Your task to perform on an android device: toggle show notifications on the lock screen Image 0: 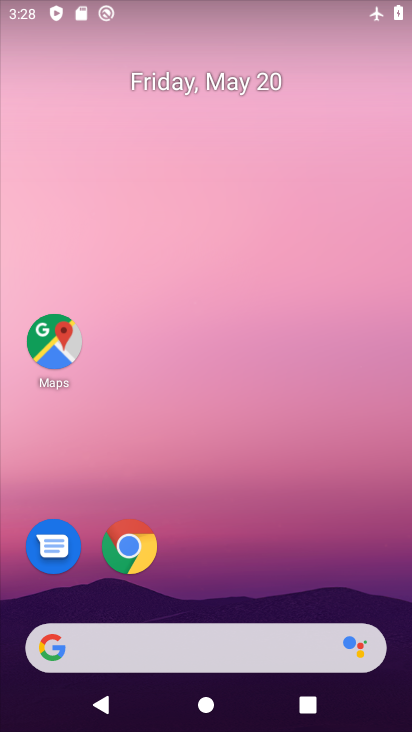
Step 0: drag from (278, 421) to (304, 137)
Your task to perform on an android device: toggle show notifications on the lock screen Image 1: 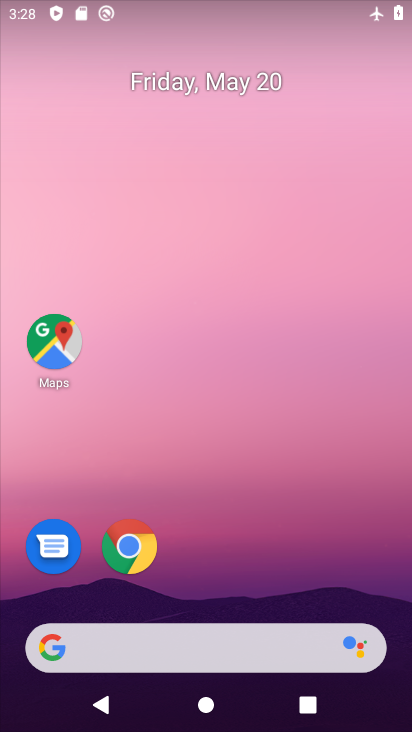
Step 1: drag from (313, 523) to (283, 53)
Your task to perform on an android device: toggle show notifications on the lock screen Image 2: 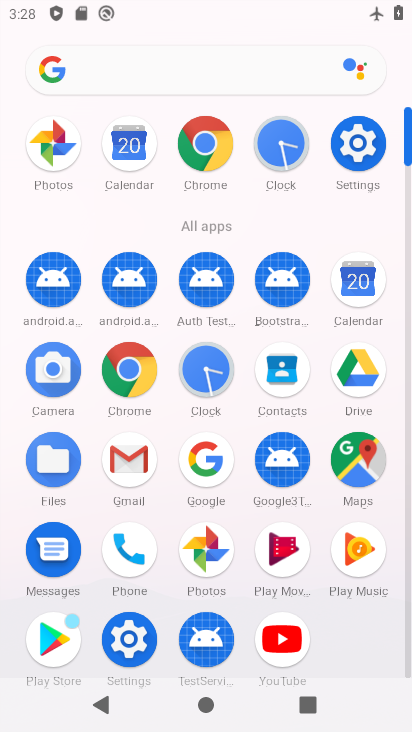
Step 2: click (362, 155)
Your task to perform on an android device: toggle show notifications on the lock screen Image 3: 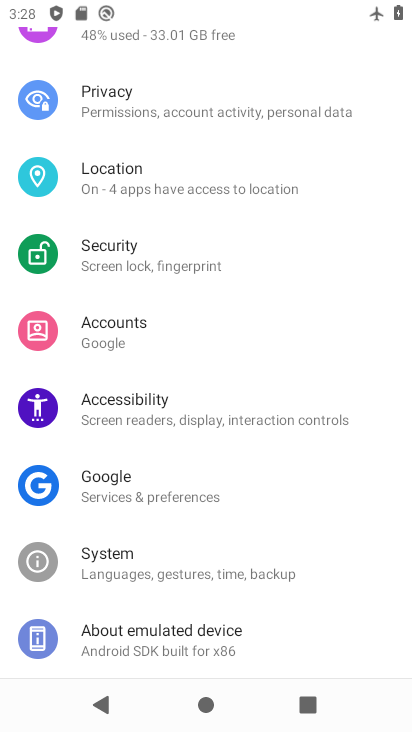
Step 3: drag from (204, 170) to (167, 625)
Your task to perform on an android device: toggle show notifications on the lock screen Image 4: 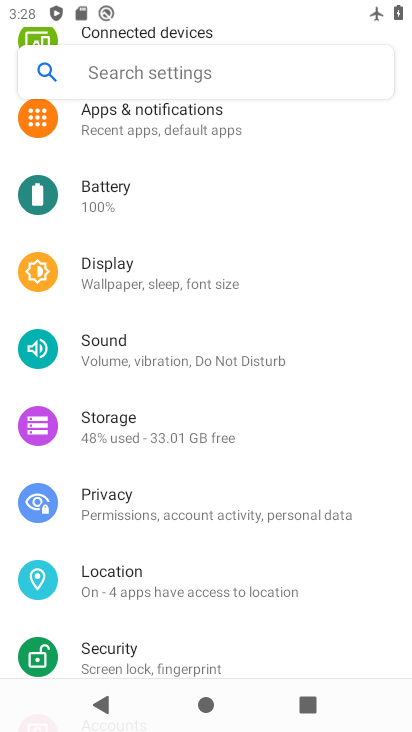
Step 4: drag from (215, 176) to (206, 559)
Your task to perform on an android device: toggle show notifications on the lock screen Image 5: 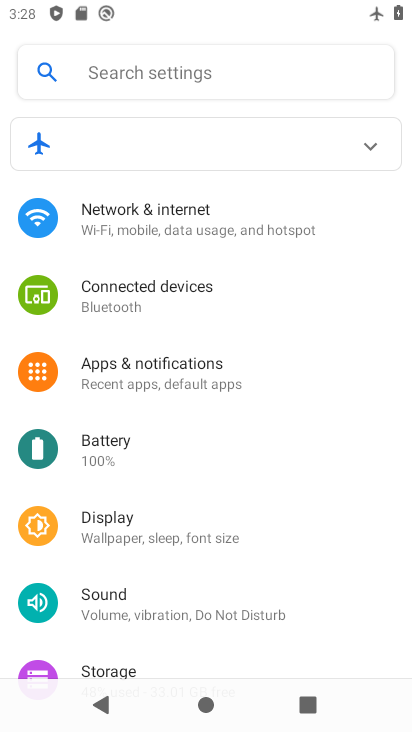
Step 5: click (164, 367)
Your task to perform on an android device: toggle show notifications on the lock screen Image 6: 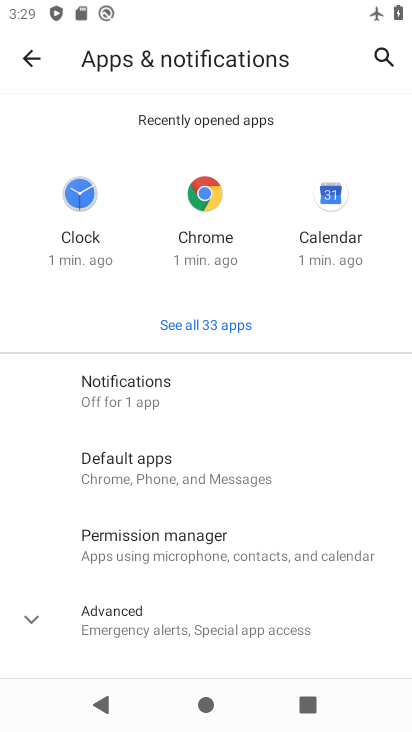
Step 6: click (160, 390)
Your task to perform on an android device: toggle show notifications on the lock screen Image 7: 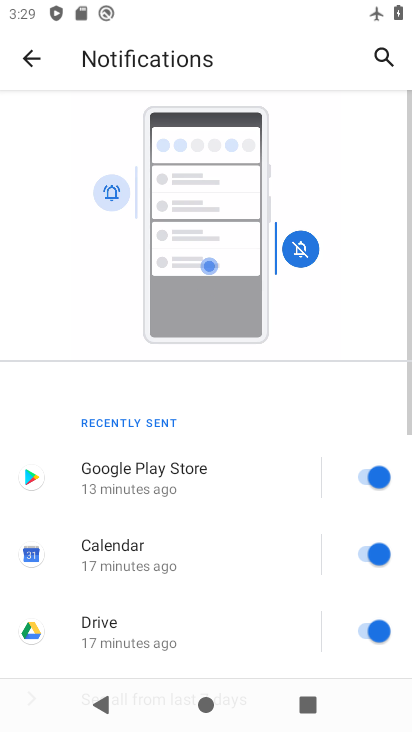
Step 7: drag from (244, 570) to (322, 90)
Your task to perform on an android device: toggle show notifications on the lock screen Image 8: 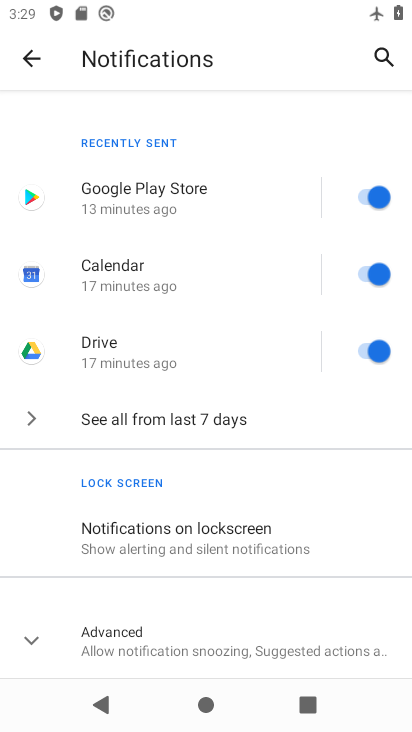
Step 8: click (218, 535)
Your task to perform on an android device: toggle show notifications on the lock screen Image 9: 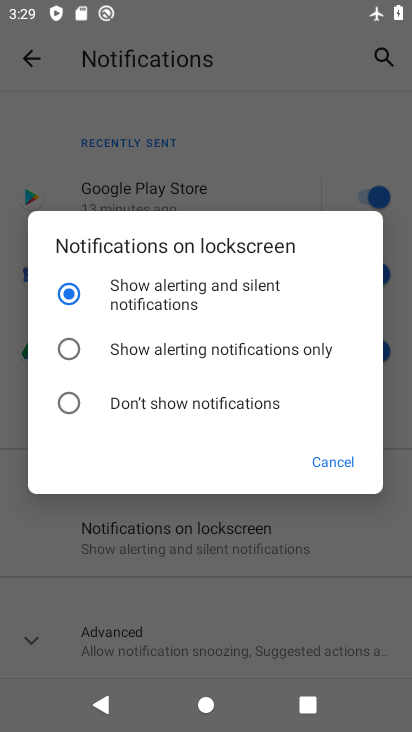
Step 9: click (196, 351)
Your task to perform on an android device: toggle show notifications on the lock screen Image 10: 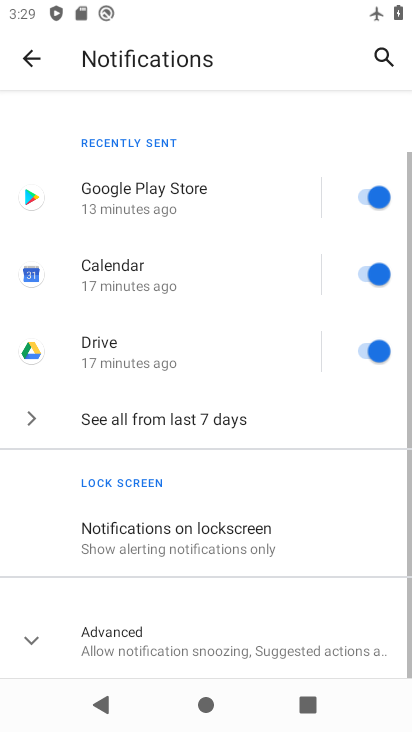
Step 10: task complete